Your task to perform on an android device: Go to Amazon Image 0: 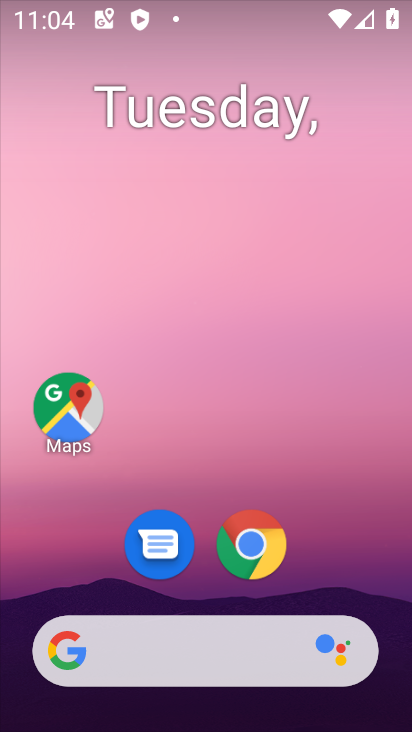
Step 0: drag from (398, 646) to (271, 6)
Your task to perform on an android device: Go to Amazon Image 1: 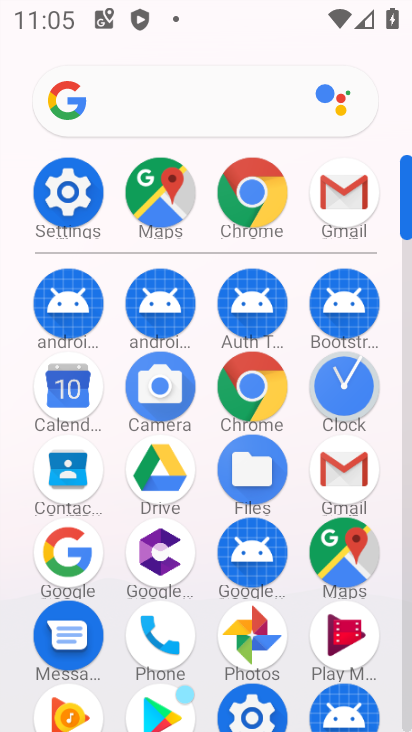
Step 1: click (257, 175)
Your task to perform on an android device: Go to Amazon Image 2: 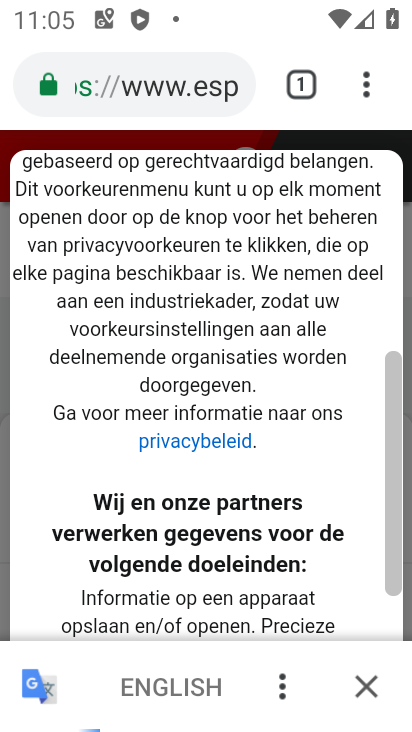
Step 2: press back button
Your task to perform on an android device: Go to Amazon Image 3: 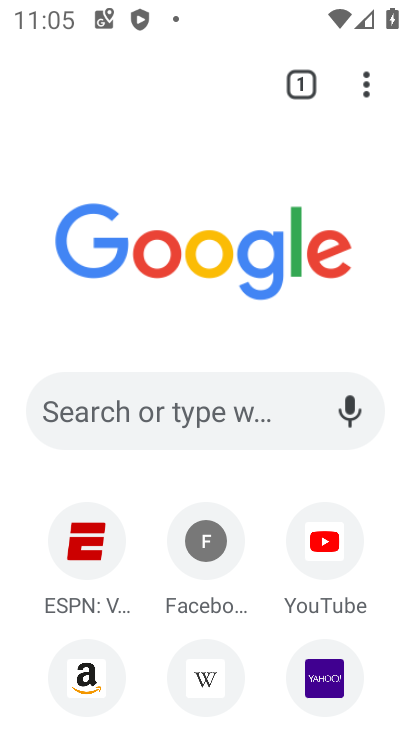
Step 3: click (90, 672)
Your task to perform on an android device: Go to Amazon Image 4: 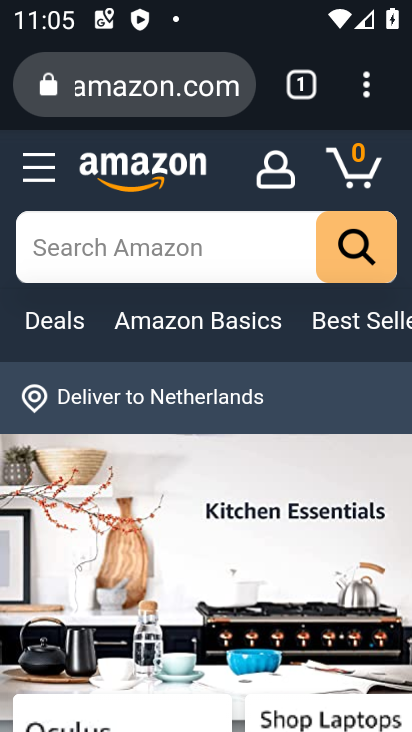
Step 4: task complete